Your task to perform on an android device: Open Google Chrome and click the shortcut for Amazon.com Image 0: 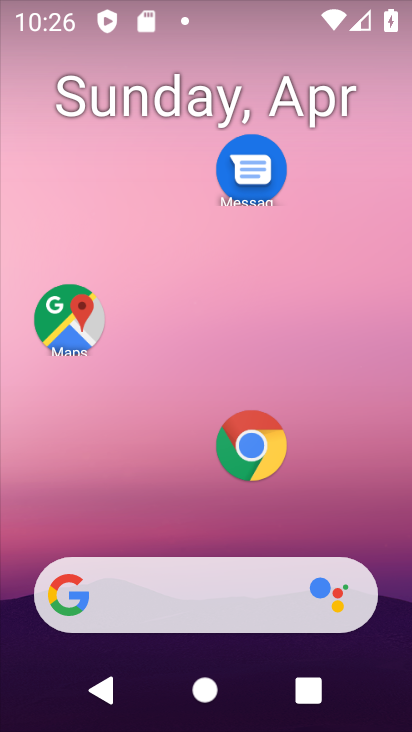
Step 0: click (259, 457)
Your task to perform on an android device: Open Google Chrome and click the shortcut for Amazon.com Image 1: 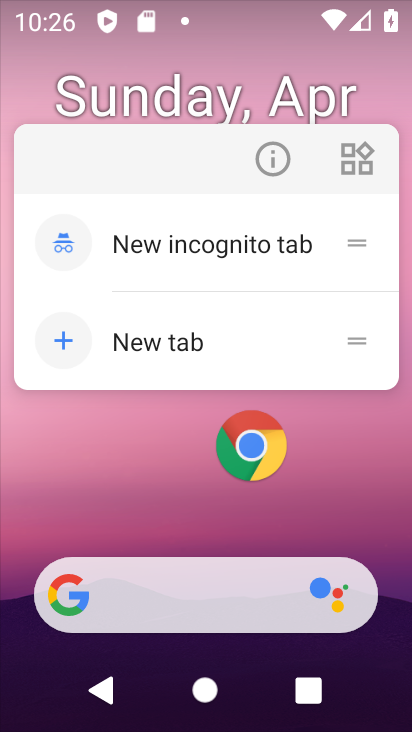
Step 1: click (255, 463)
Your task to perform on an android device: Open Google Chrome and click the shortcut for Amazon.com Image 2: 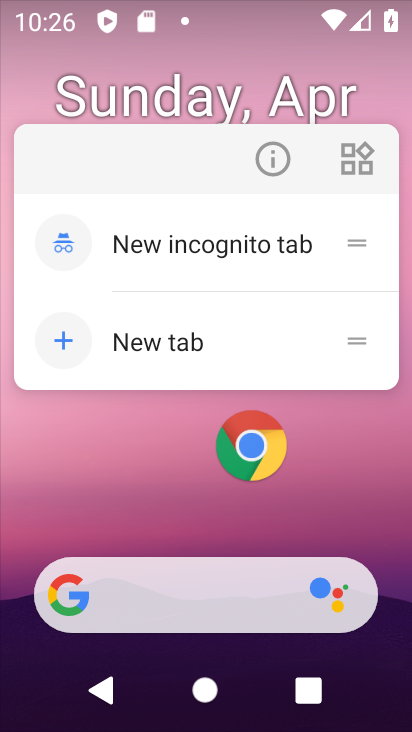
Step 2: click (252, 443)
Your task to perform on an android device: Open Google Chrome and click the shortcut for Amazon.com Image 3: 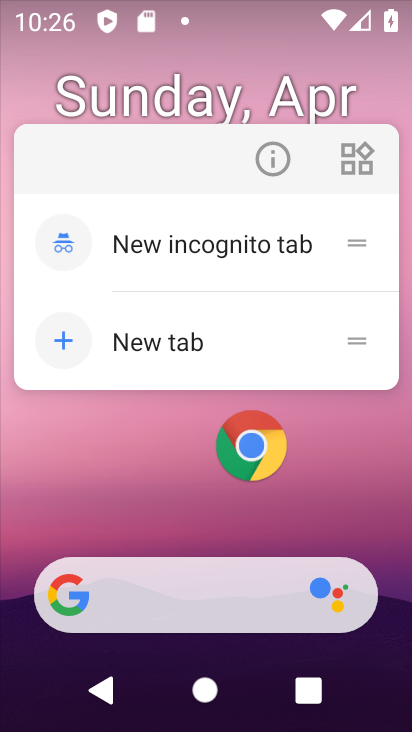
Step 3: click (246, 452)
Your task to perform on an android device: Open Google Chrome and click the shortcut for Amazon.com Image 4: 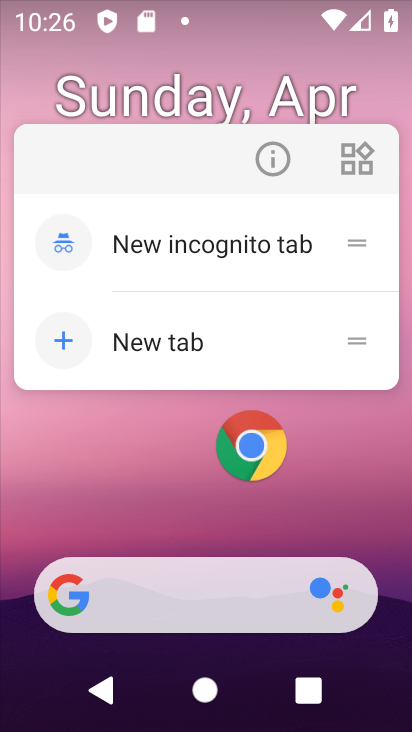
Step 4: click (243, 458)
Your task to perform on an android device: Open Google Chrome and click the shortcut for Amazon.com Image 5: 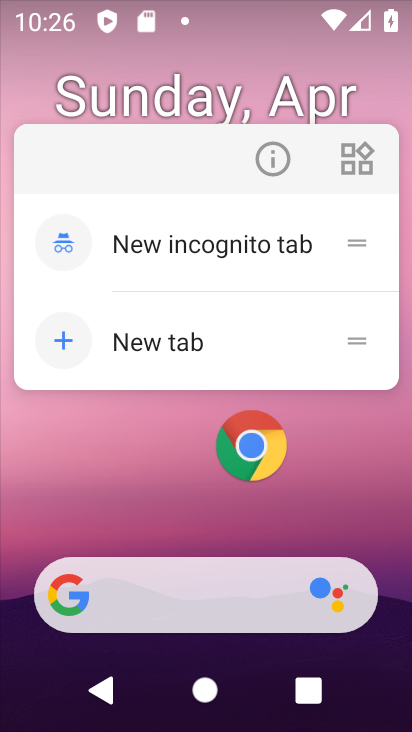
Step 5: click (256, 452)
Your task to perform on an android device: Open Google Chrome and click the shortcut for Amazon.com Image 6: 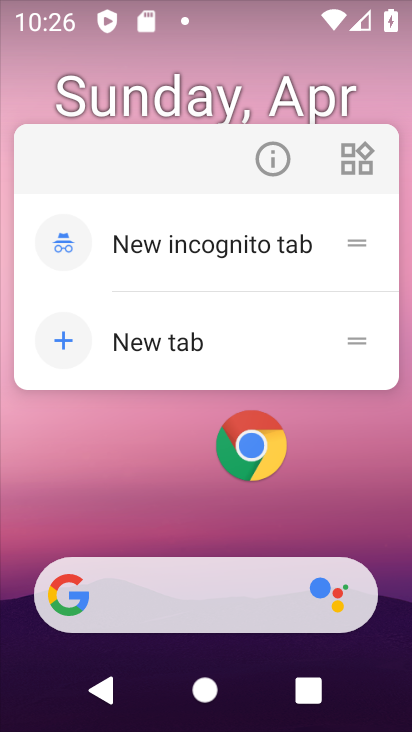
Step 6: click (268, 441)
Your task to perform on an android device: Open Google Chrome and click the shortcut for Amazon.com Image 7: 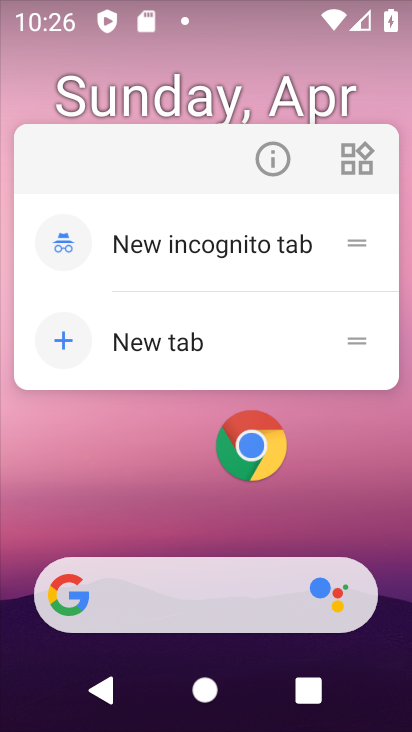
Step 7: click (254, 458)
Your task to perform on an android device: Open Google Chrome and click the shortcut for Amazon.com Image 8: 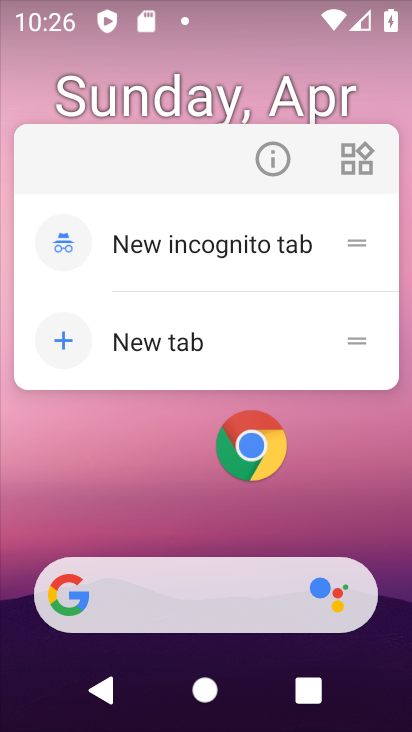
Step 8: click (252, 461)
Your task to perform on an android device: Open Google Chrome and click the shortcut for Amazon.com Image 9: 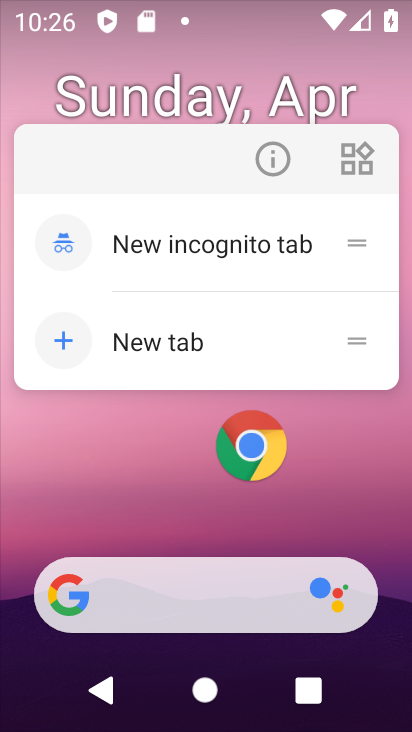
Step 9: click (256, 450)
Your task to perform on an android device: Open Google Chrome and click the shortcut for Amazon.com Image 10: 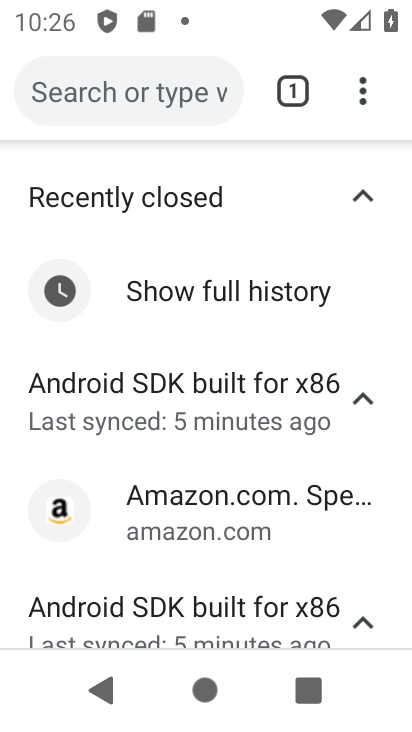
Step 10: drag from (359, 94) to (77, 180)
Your task to perform on an android device: Open Google Chrome and click the shortcut for Amazon.com Image 11: 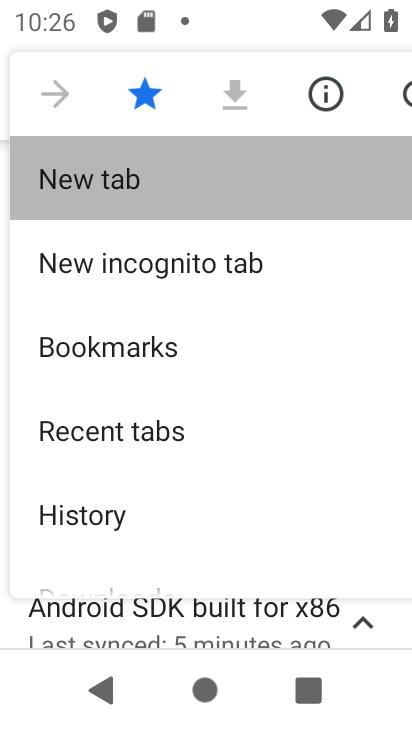
Step 11: click (77, 180)
Your task to perform on an android device: Open Google Chrome and click the shortcut for Amazon.com Image 12: 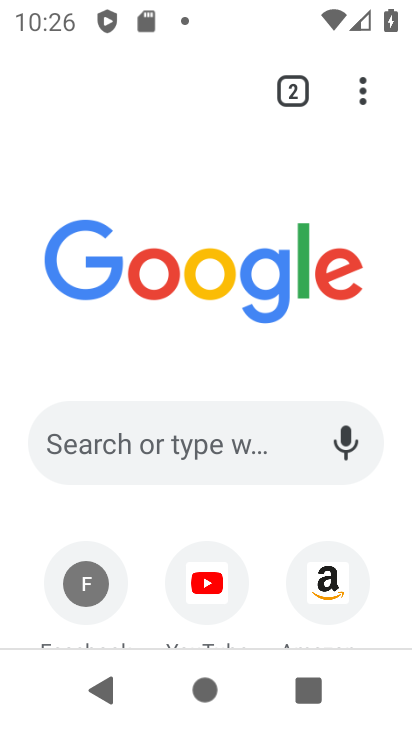
Step 12: drag from (141, 549) to (282, 247)
Your task to perform on an android device: Open Google Chrome and click the shortcut for Amazon.com Image 13: 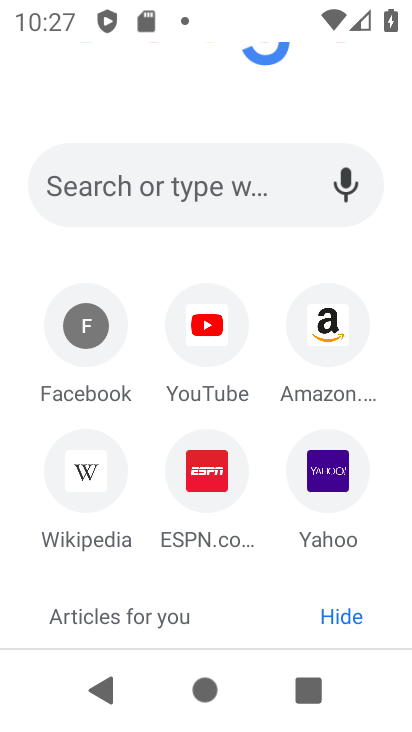
Step 13: click (347, 321)
Your task to perform on an android device: Open Google Chrome and click the shortcut for Amazon.com Image 14: 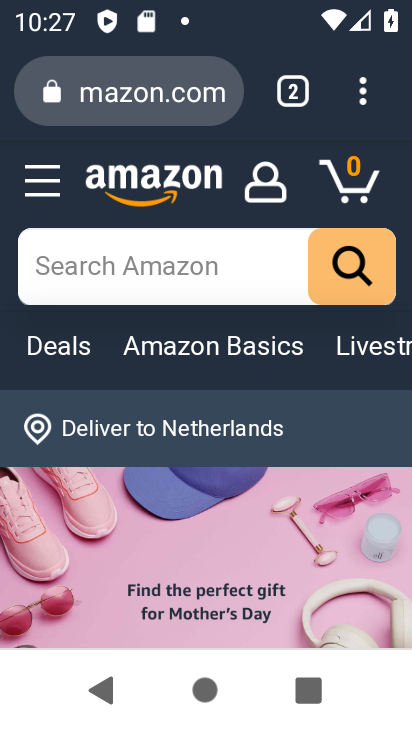
Step 14: task complete